Your task to perform on an android device: turn on improve location accuracy Image 0: 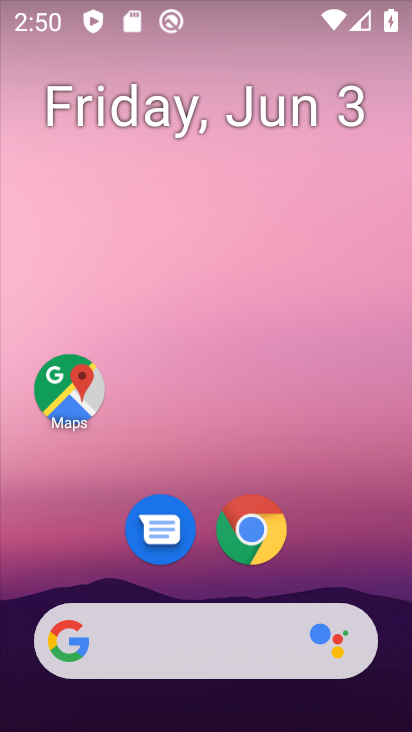
Step 0: drag from (386, 723) to (341, 144)
Your task to perform on an android device: turn on improve location accuracy Image 1: 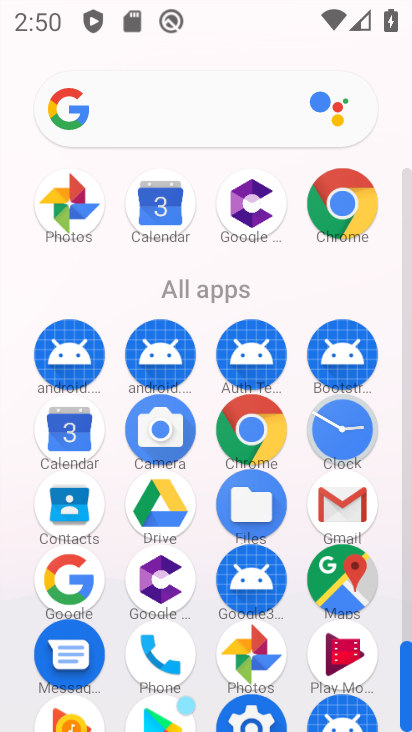
Step 1: click (239, 704)
Your task to perform on an android device: turn on improve location accuracy Image 2: 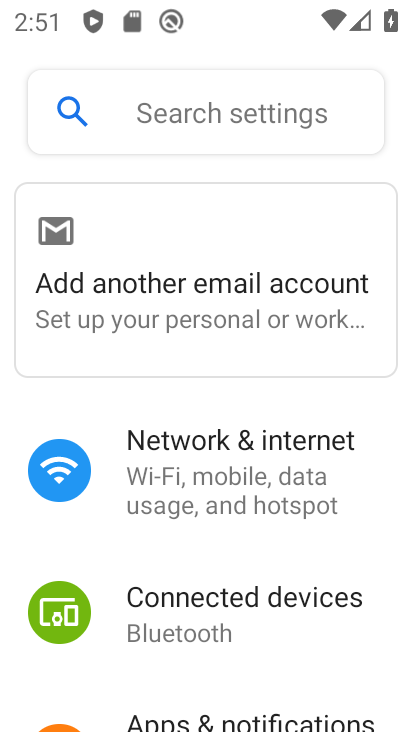
Step 2: drag from (237, 672) to (250, 275)
Your task to perform on an android device: turn on improve location accuracy Image 3: 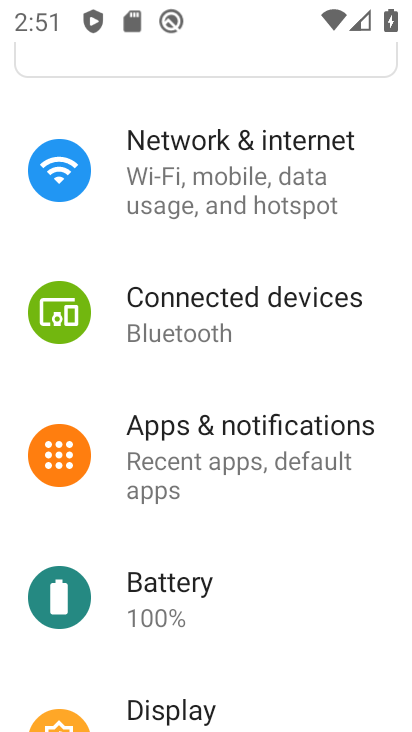
Step 3: drag from (245, 671) to (254, 513)
Your task to perform on an android device: turn on improve location accuracy Image 4: 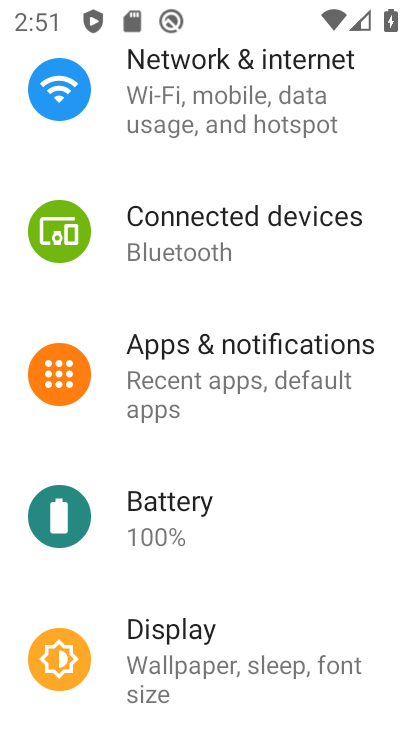
Step 4: drag from (301, 696) to (282, 392)
Your task to perform on an android device: turn on improve location accuracy Image 5: 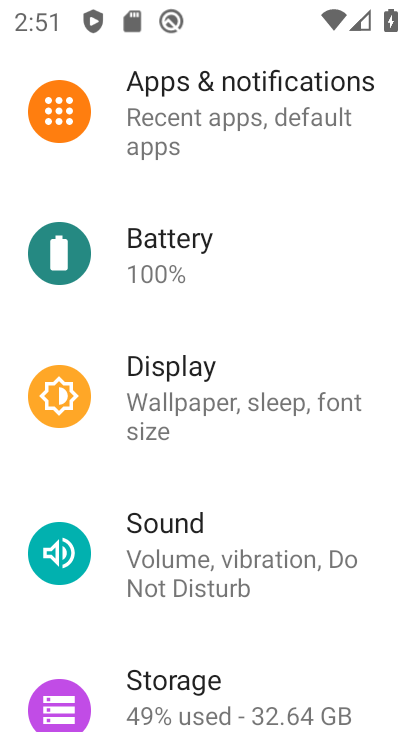
Step 5: drag from (265, 629) to (274, 313)
Your task to perform on an android device: turn on improve location accuracy Image 6: 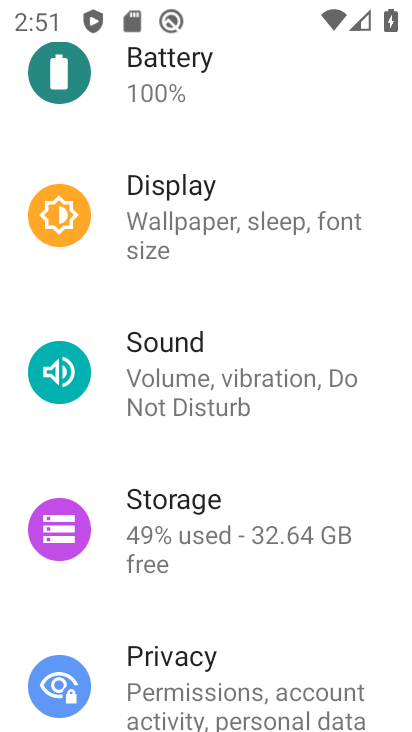
Step 6: drag from (288, 601) to (277, 244)
Your task to perform on an android device: turn on improve location accuracy Image 7: 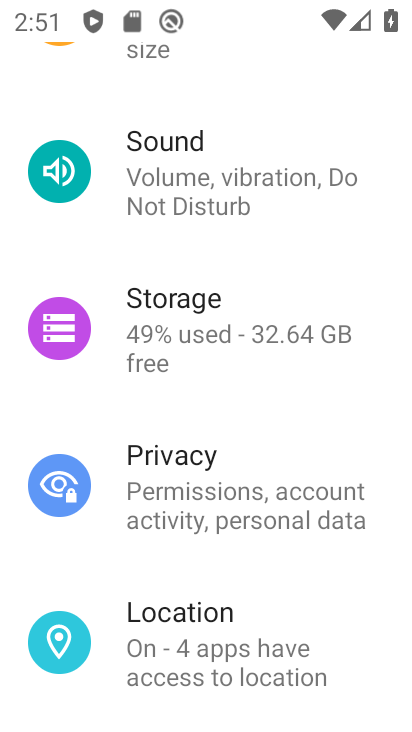
Step 7: click (215, 619)
Your task to perform on an android device: turn on improve location accuracy Image 8: 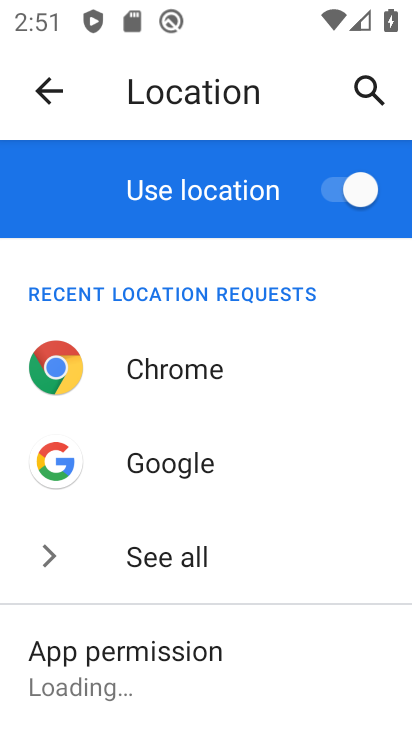
Step 8: drag from (283, 693) to (224, 270)
Your task to perform on an android device: turn on improve location accuracy Image 9: 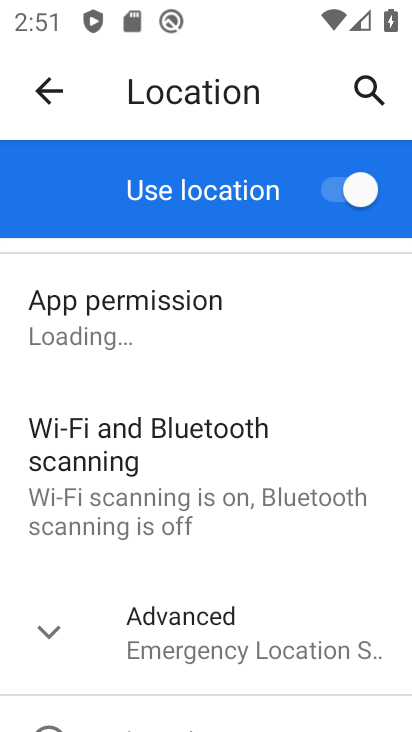
Step 9: click (36, 644)
Your task to perform on an android device: turn on improve location accuracy Image 10: 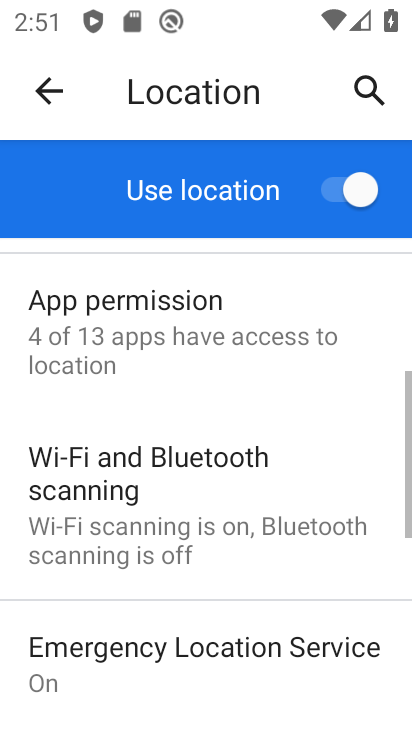
Step 10: drag from (240, 699) to (257, 369)
Your task to perform on an android device: turn on improve location accuracy Image 11: 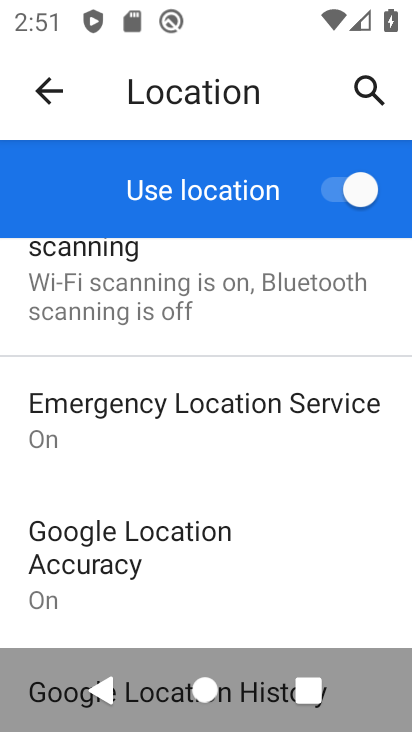
Step 11: drag from (263, 553) to (253, 290)
Your task to perform on an android device: turn on improve location accuracy Image 12: 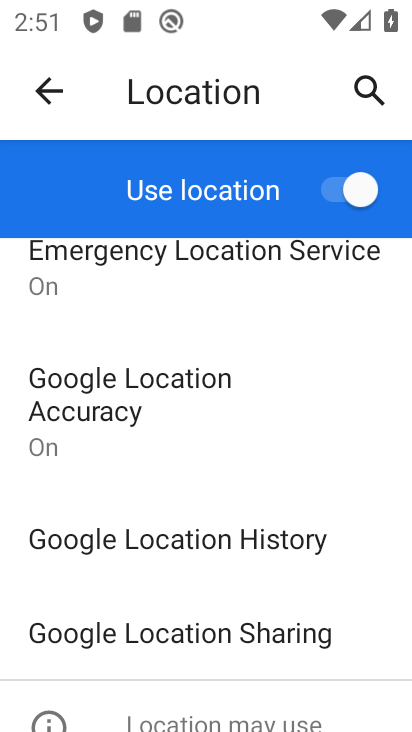
Step 12: click (74, 402)
Your task to perform on an android device: turn on improve location accuracy Image 13: 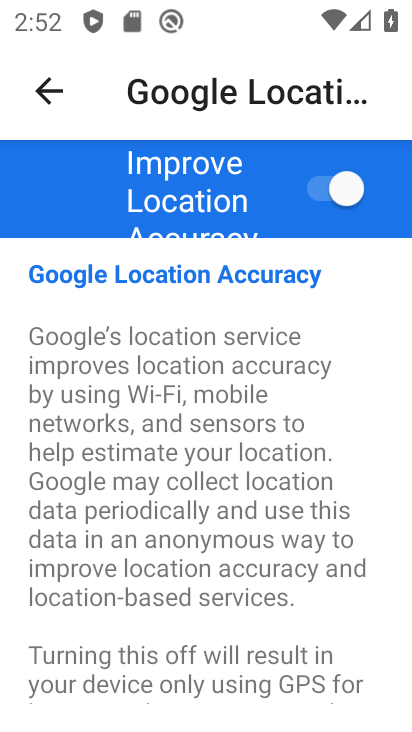
Step 13: task complete